Your task to perform on an android device: Open Wikipedia Image 0: 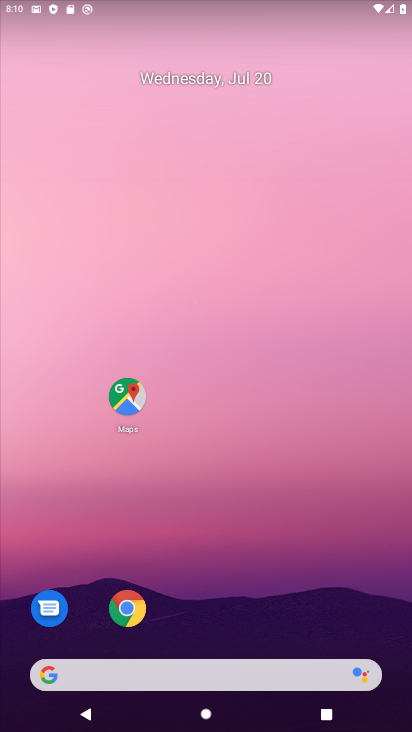
Step 0: click (130, 615)
Your task to perform on an android device: Open Wikipedia Image 1: 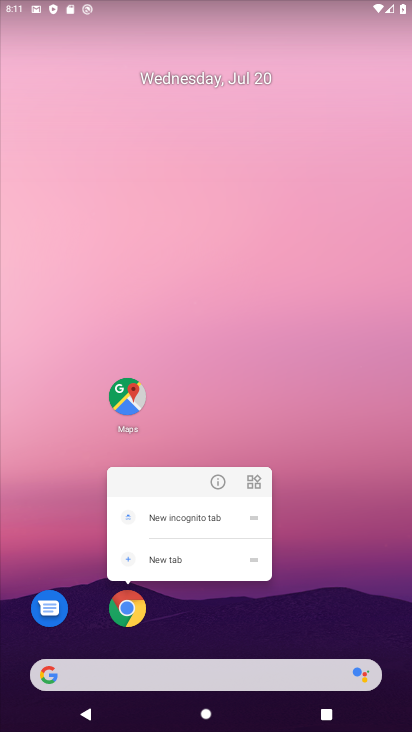
Step 1: click (127, 598)
Your task to perform on an android device: Open Wikipedia Image 2: 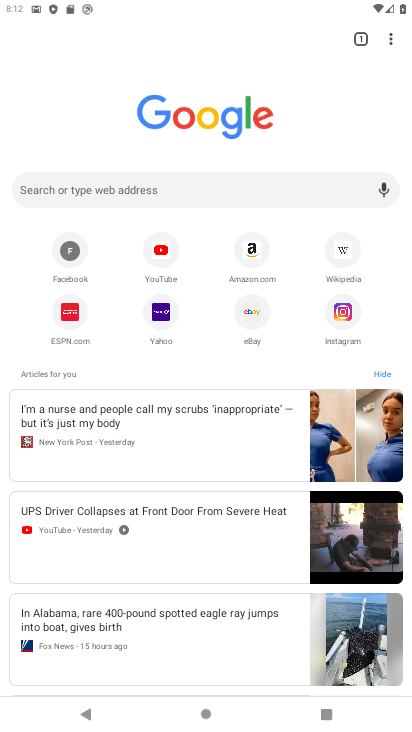
Step 2: click (347, 258)
Your task to perform on an android device: Open Wikipedia Image 3: 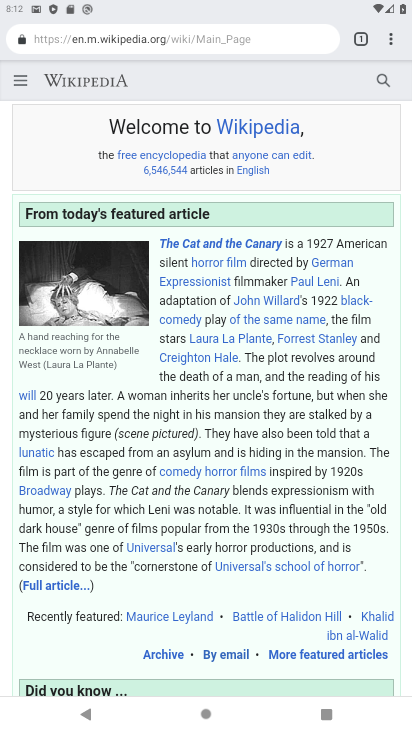
Step 3: task complete